Your task to perform on an android device: Go to accessibility settings Image 0: 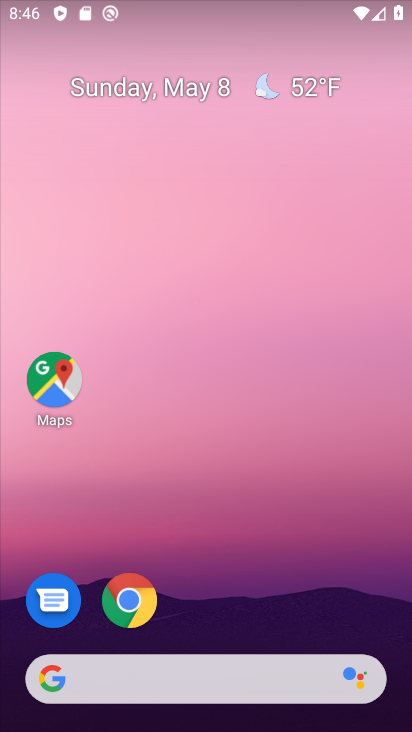
Step 0: drag from (221, 642) to (165, 56)
Your task to perform on an android device: Go to accessibility settings Image 1: 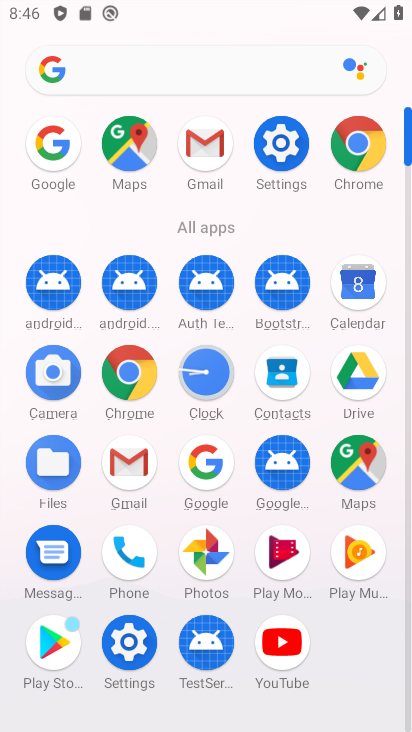
Step 1: click (282, 155)
Your task to perform on an android device: Go to accessibility settings Image 2: 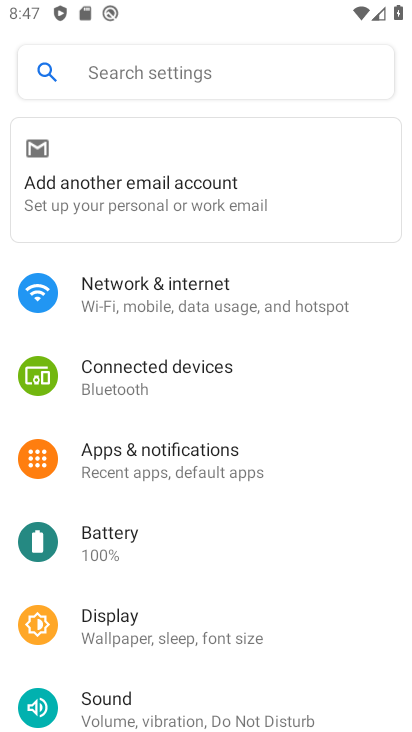
Step 2: drag from (262, 580) to (198, 103)
Your task to perform on an android device: Go to accessibility settings Image 3: 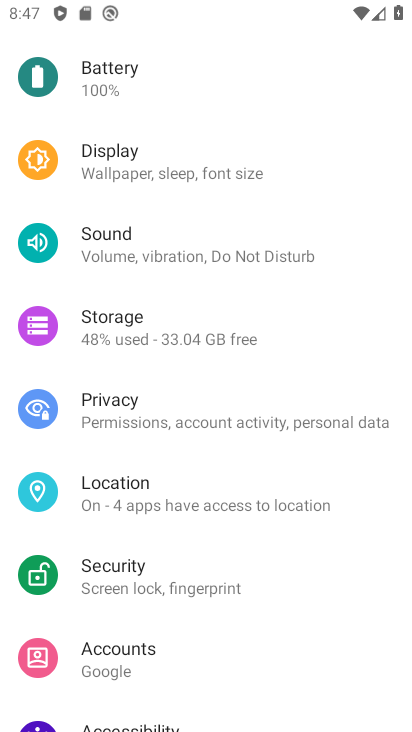
Step 3: drag from (180, 635) to (136, 275)
Your task to perform on an android device: Go to accessibility settings Image 4: 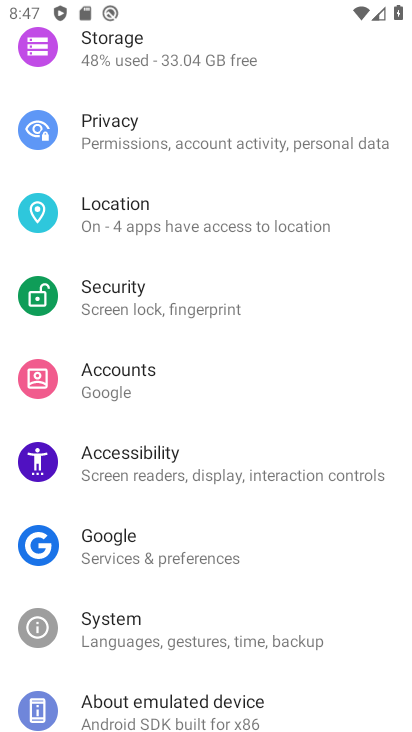
Step 4: click (85, 470)
Your task to perform on an android device: Go to accessibility settings Image 5: 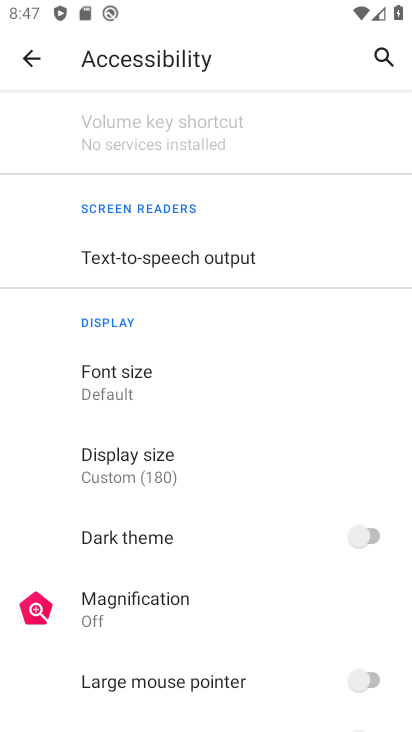
Step 5: task complete